Your task to perform on an android device: toggle translation in the chrome app Image 0: 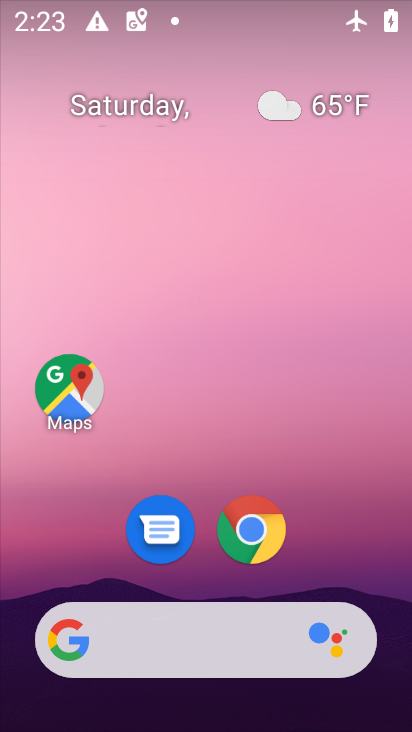
Step 0: click (265, 538)
Your task to perform on an android device: toggle translation in the chrome app Image 1: 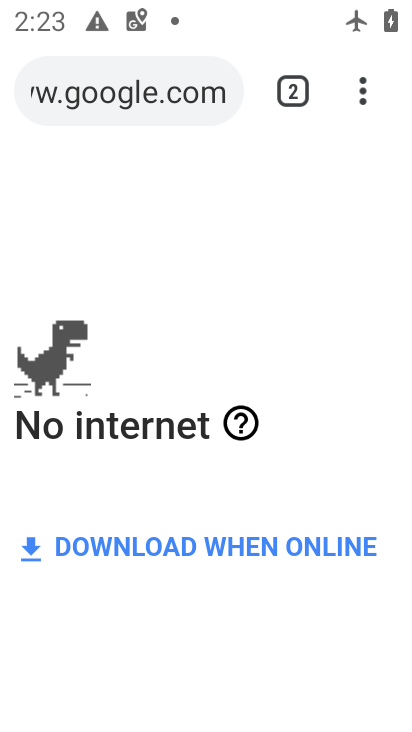
Step 1: click (369, 94)
Your task to perform on an android device: toggle translation in the chrome app Image 2: 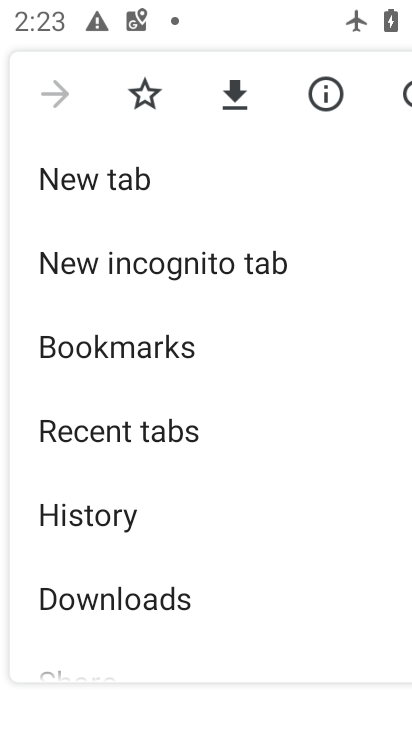
Step 2: drag from (306, 632) to (141, 85)
Your task to perform on an android device: toggle translation in the chrome app Image 3: 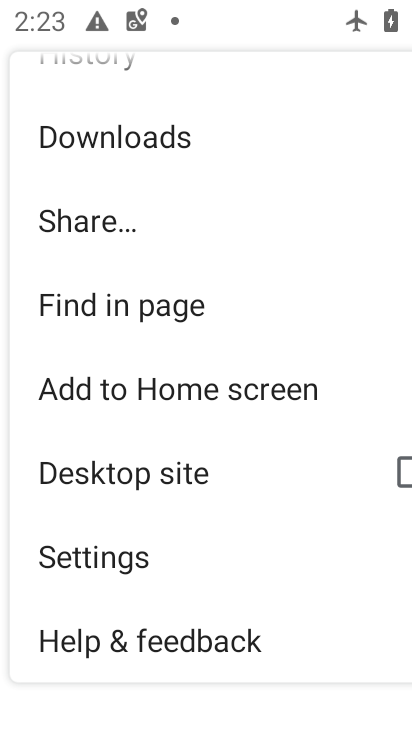
Step 3: click (181, 557)
Your task to perform on an android device: toggle translation in the chrome app Image 4: 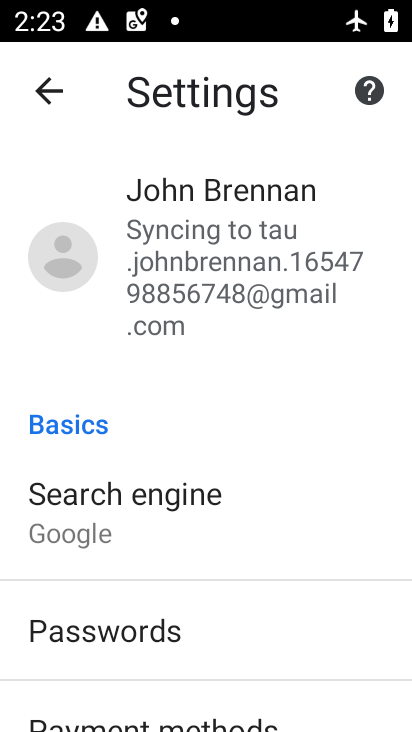
Step 4: drag from (254, 632) to (174, 294)
Your task to perform on an android device: toggle translation in the chrome app Image 5: 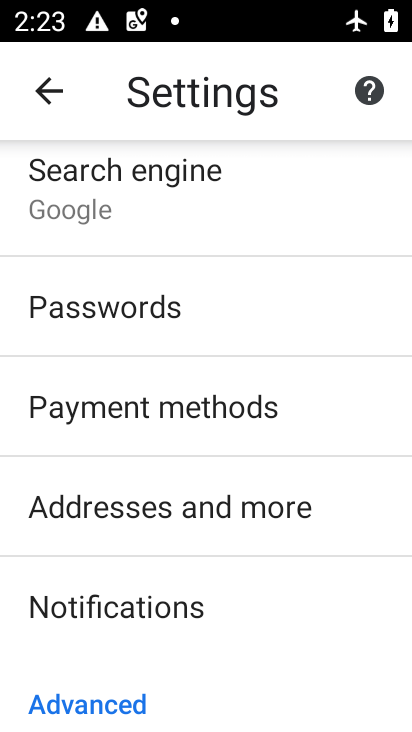
Step 5: drag from (242, 645) to (239, 358)
Your task to perform on an android device: toggle translation in the chrome app Image 6: 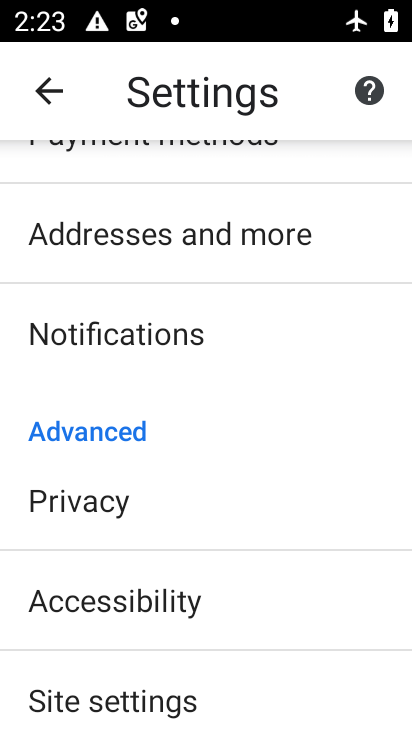
Step 6: click (260, 696)
Your task to perform on an android device: toggle translation in the chrome app Image 7: 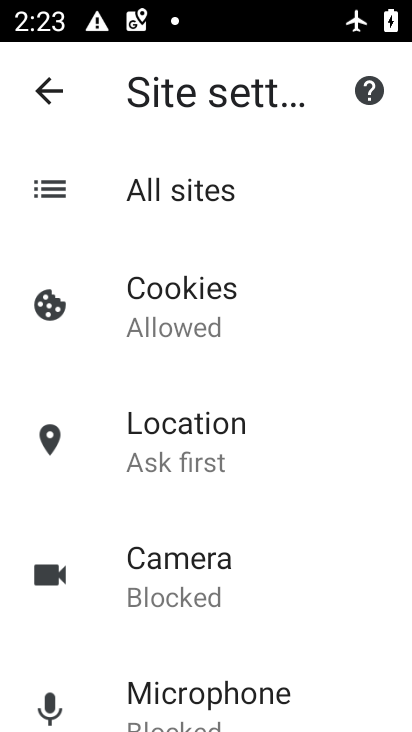
Step 7: press back button
Your task to perform on an android device: toggle translation in the chrome app Image 8: 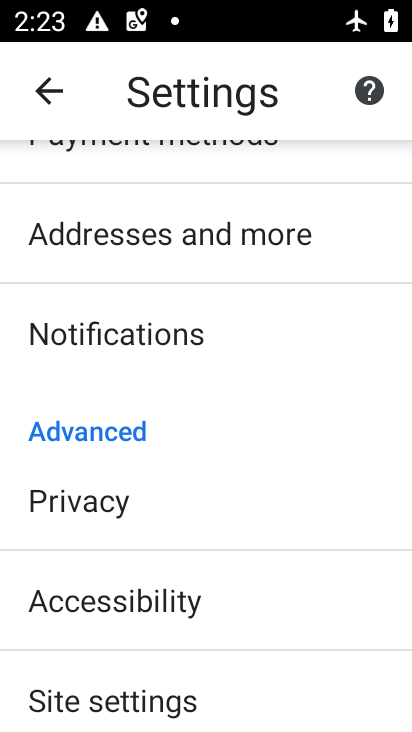
Step 8: drag from (334, 667) to (287, 266)
Your task to perform on an android device: toggle translation in the chrome app Image 9: 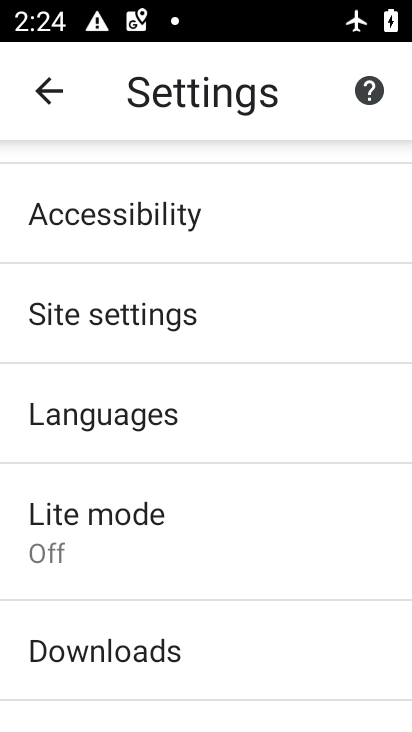
Step 9: click (201, 424)
Your task to perform on an android device: toggle translation in the chrome app Image 10: 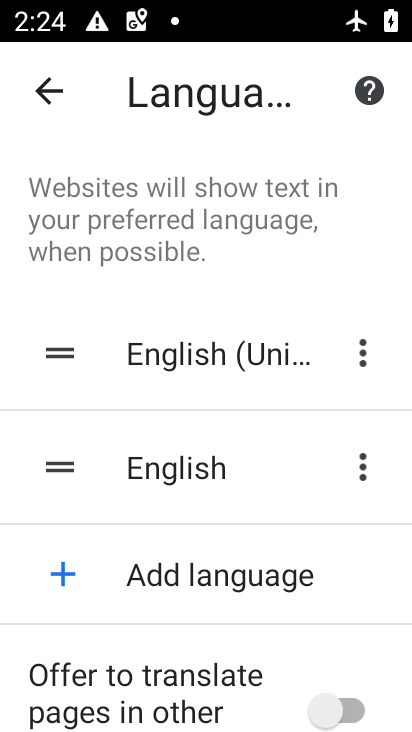
Step 10: click (351, 700)
Your task to perform on an android device: toggle translation in the chrome app Image 11: 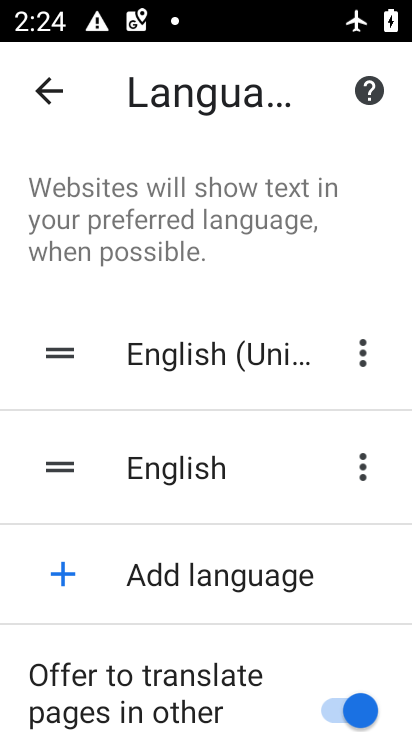
Step 11: task complete